Your task to perform on an android device: set the stopwatch Image 0: 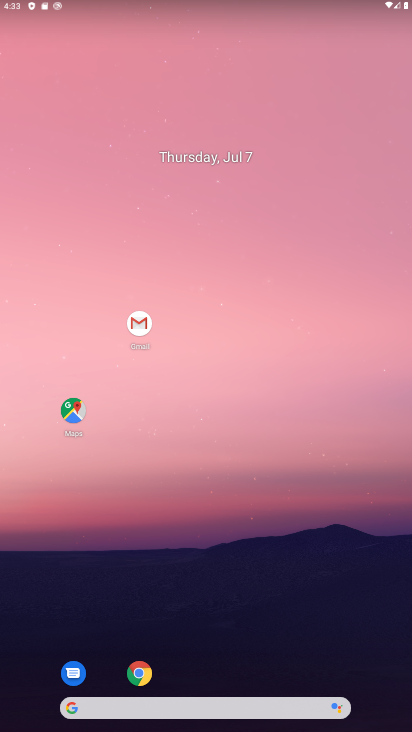
Step 0: drag from (250, 629) to (228, 127)
Your task to perform on an android device: set the stopwatch Image 1: 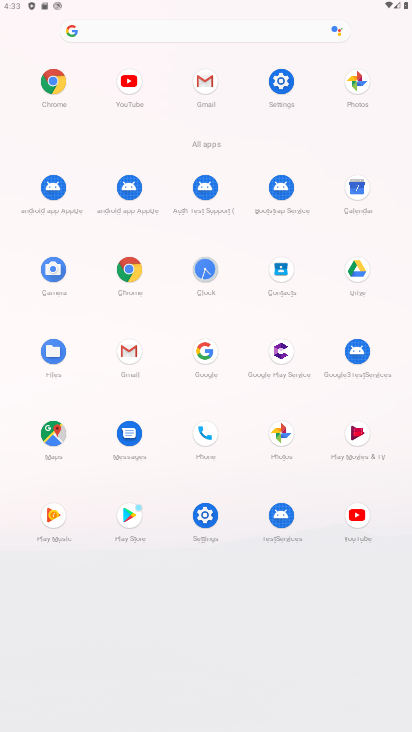
Step 1: click (200, 257)
Your task to perform on an android device: set the stopwatch Image 2: 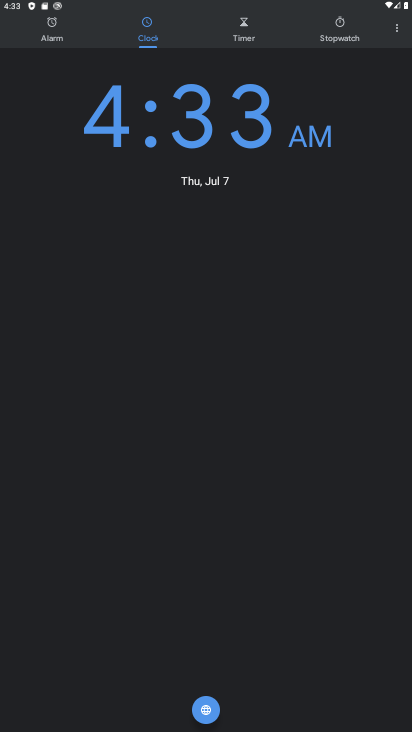
Step 2: click (345, 25)
Your task to perform on an android device: set the stopwatch Image 3: 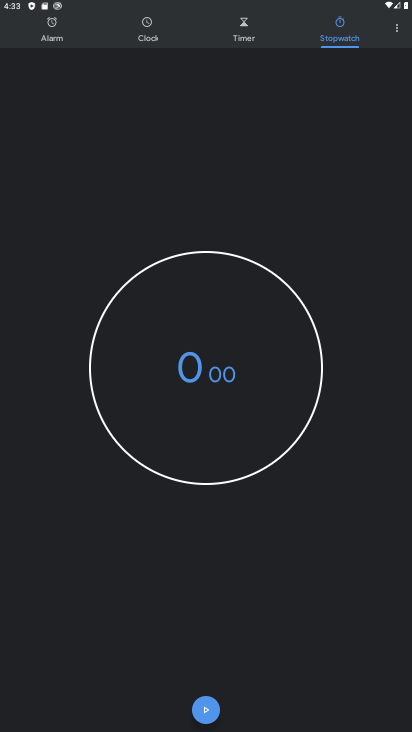
Step 3: click (211, 713)
Your task to perform on an android device: set the stopwatch Image 4: 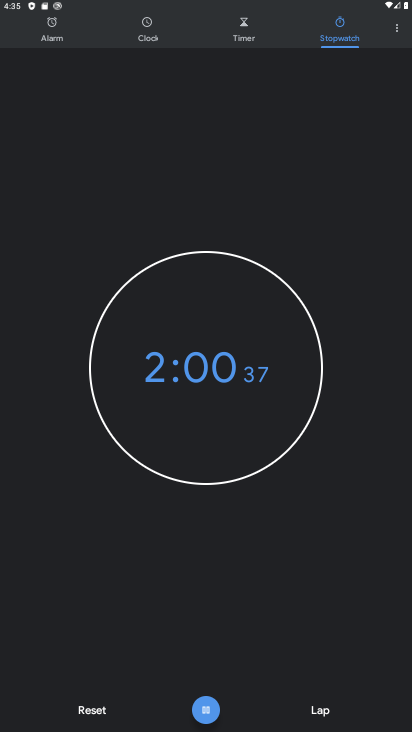
Step 4: task complete